Your task to perform on an android device: turn vacation reply on in the gmail app Image 0: 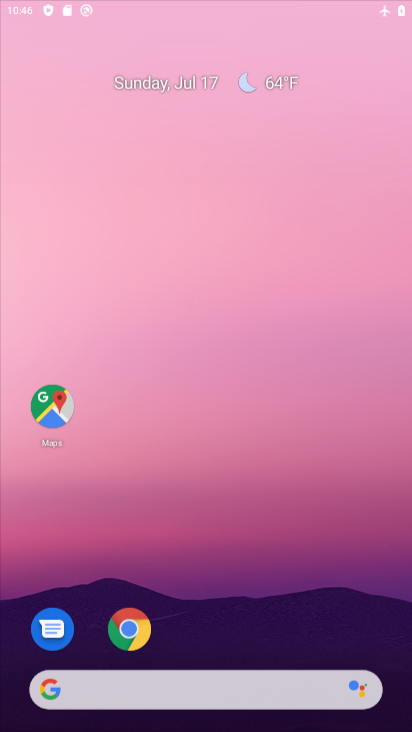
Step 0: press home button
Your task to perform on an android device: turn vacation reply on in the gmail app Image 1: 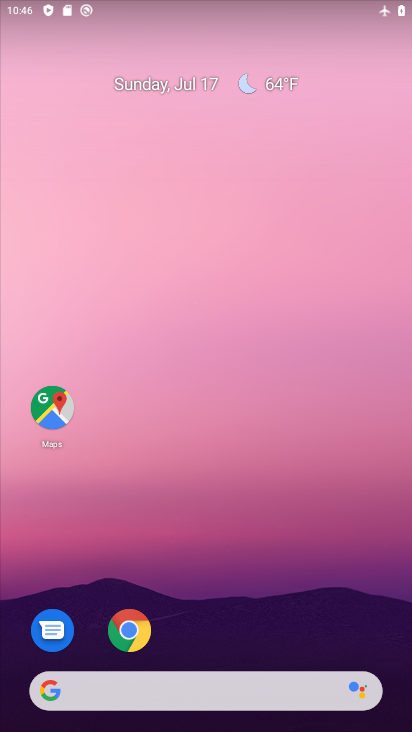
Step 1: drag from (343, 627) to (270, 94)
Your task to perform on an android device: turn vacation reply on in the gmail app Image 2: 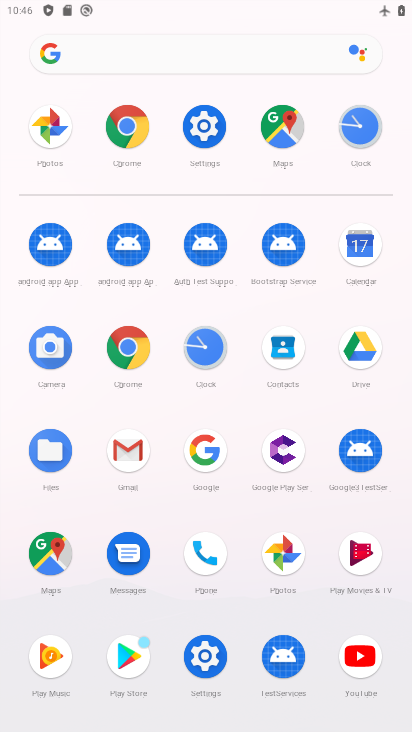
Step 2: click (125, 448)
Your task to perform on an android device: turn vacation reply on in the gmail app Image 3: 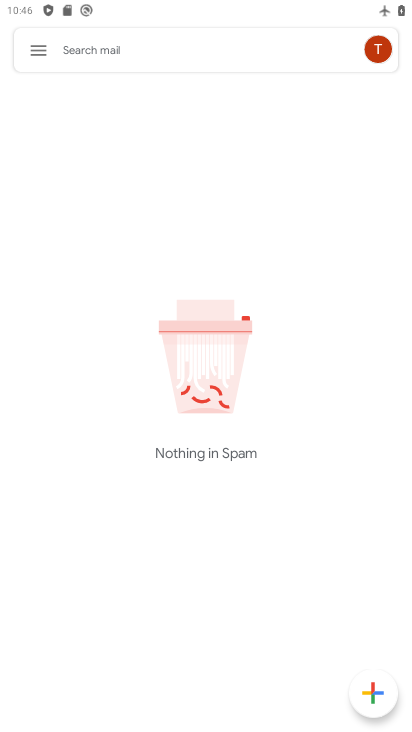
Step 3: click (39, 46)
Your task to perform on an android device: turn vacation reply on in the gmail app Image 4: 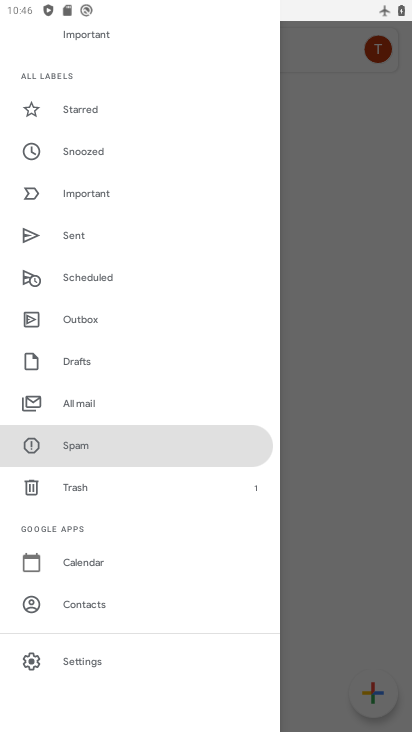
Step 4: click (84, 667)
Your task to perform on an android device: turn vacation reply on in the gmail app Image 5: 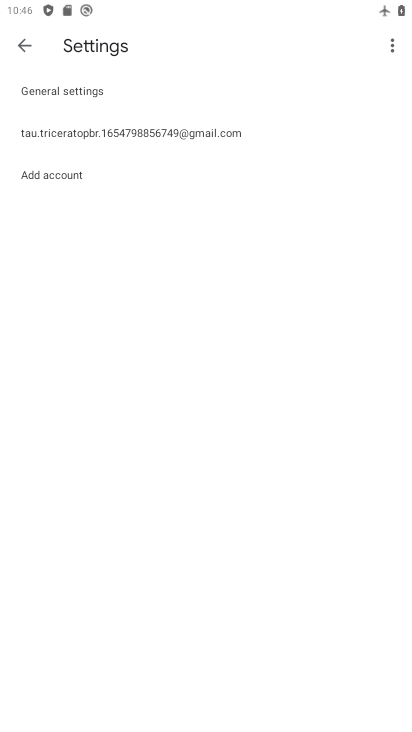
Step 5: click (87, 126)
Your task to perform on an android device: turn vacation reply on in the gmail app Image 6: 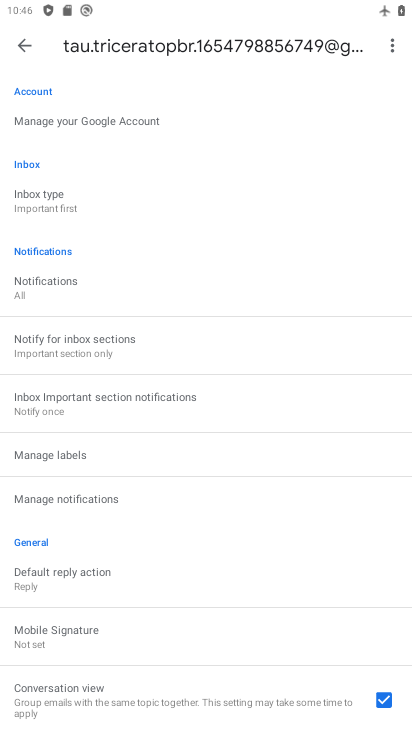
Step 6: drag from (169, 638) to (162, 221)
Your task to perform on an android device: turn vacation reply on in the gmail app Image 7: 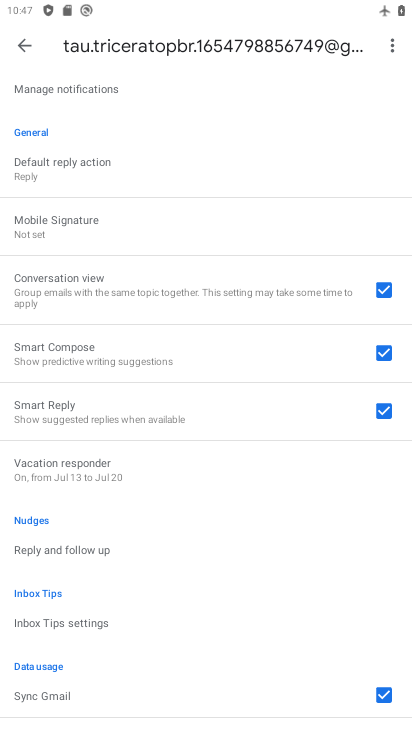
Step 7: click (101, 464)
Your task to perform on an android device: turn vacation reply on in the gmail app Image 8: 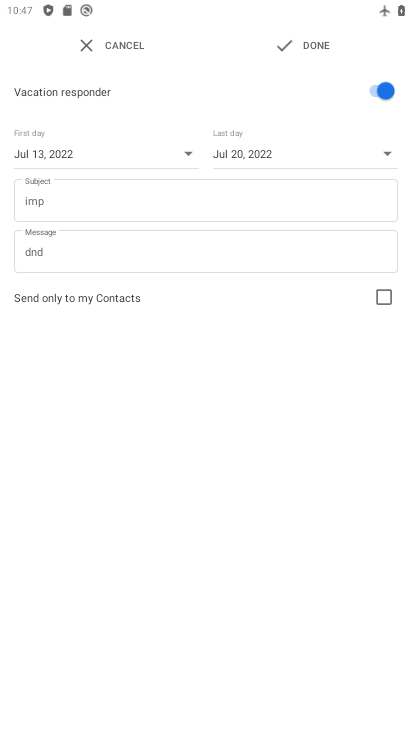
Step 8: click (316, 46)
Your task to perform on an android device: turn vacation reply on in the gmail app Image 9: 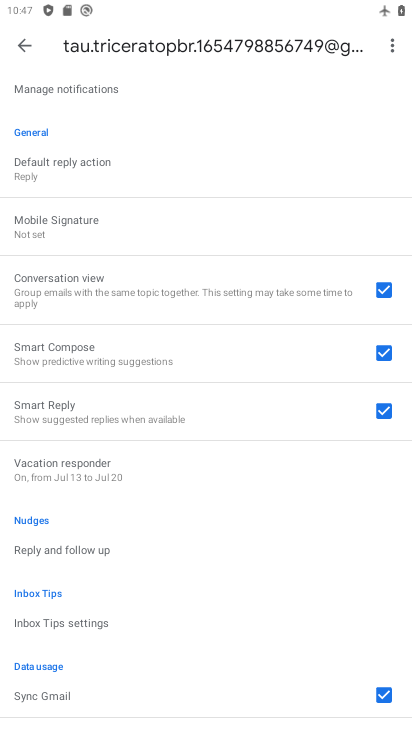
Step 9: task complete